Your task to perform on an android device: Open Google Image 0: 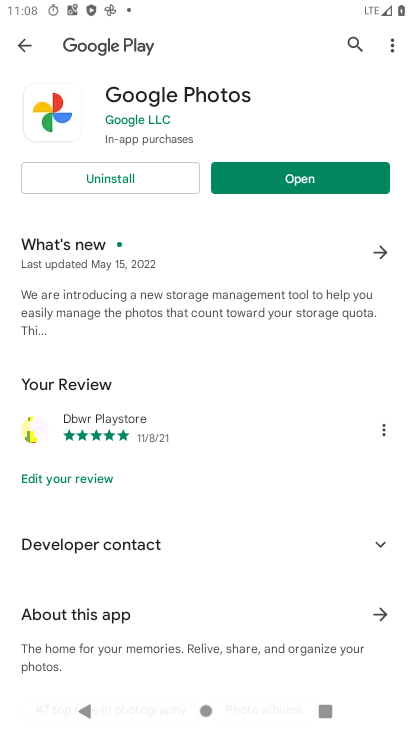
Step 0: press home button
Your task to perform on an android device: Open Google Image 1: 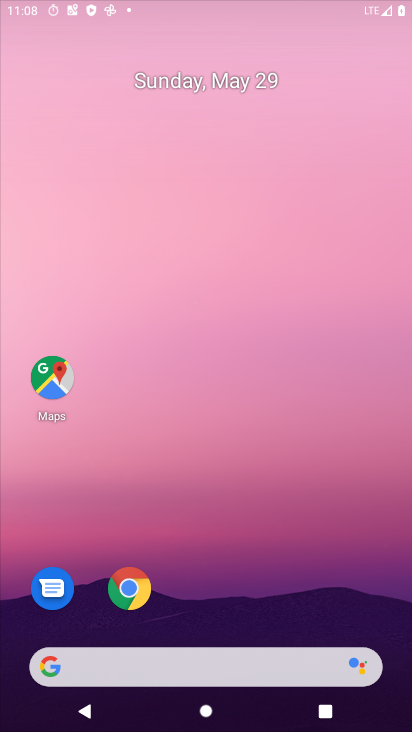
Step 1: drag from (287, 605) to (340, 211)
Your task to perform on an android device: Open Google Image 2: 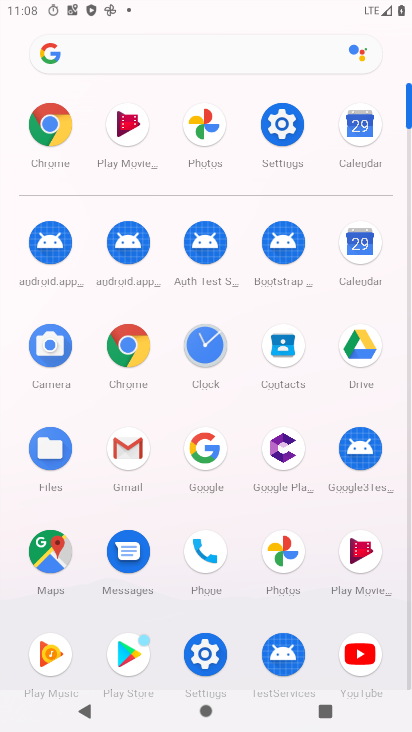
Step 2: click (208, 455)
Your task to perform on an android device: Open Google Image 3: 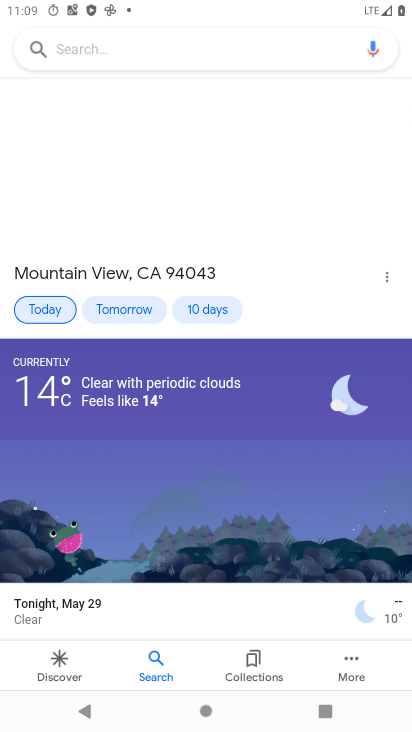
Step 3: task complete